Your task to perform on an android device: Search for Mexican restaurants on Maps Image 0: 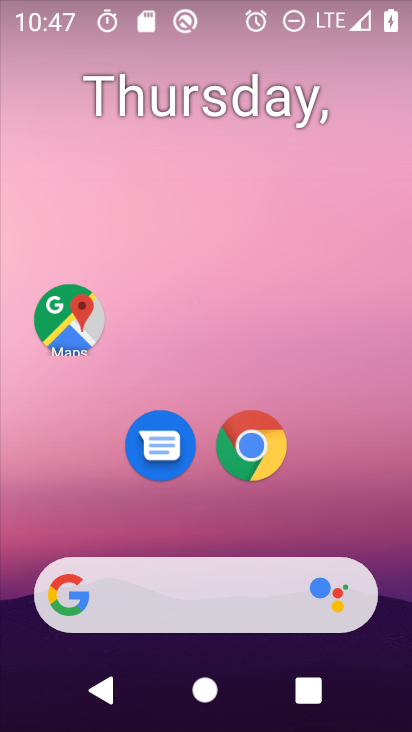
Step 0: drag from (261, 234) to (277, 166)
Your task to perform on an android device: Search for Mexican restaurants on Maps Image 1: 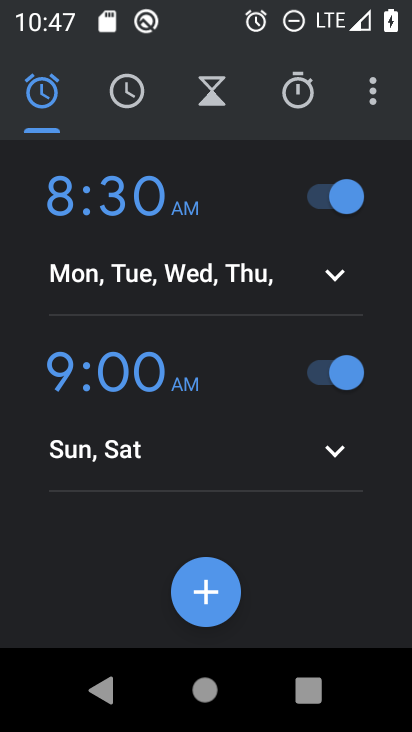
Step 1: press home button
Your task to perform on an android device: Search for Mexican restaurants on Maps Image 2: 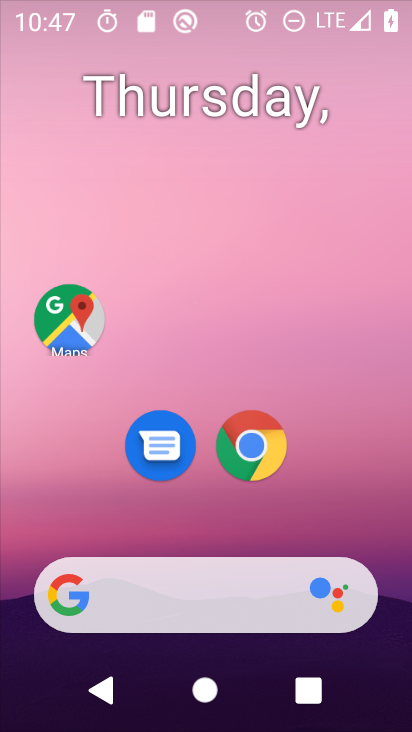
Step 2: drag from (207, 550) to (300, 75)
Your task to perform on an android device: Search for Mexican restaurants on Maps Image 3: 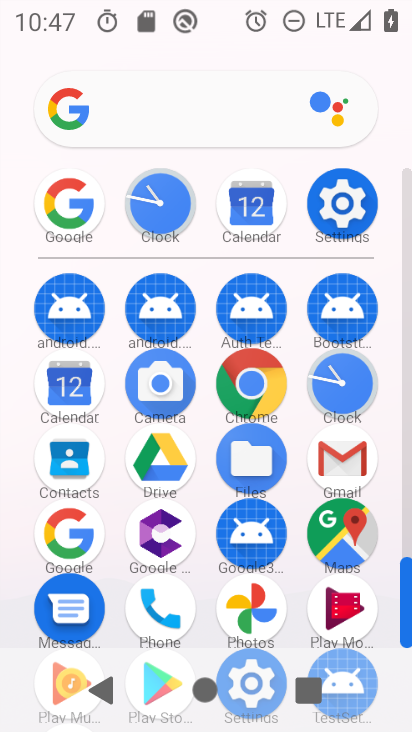
Step 3: click (329, 511)
Your task to perform on an android device: Search for Mexican restaurants on Maps Image 4: 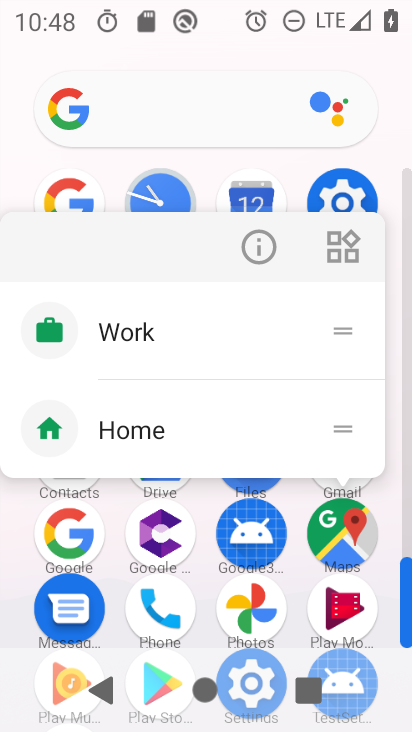
Step 4: click (271, 257)
Your task to perform on an android device: Search for Mexican restaurants on Maps Image 5: 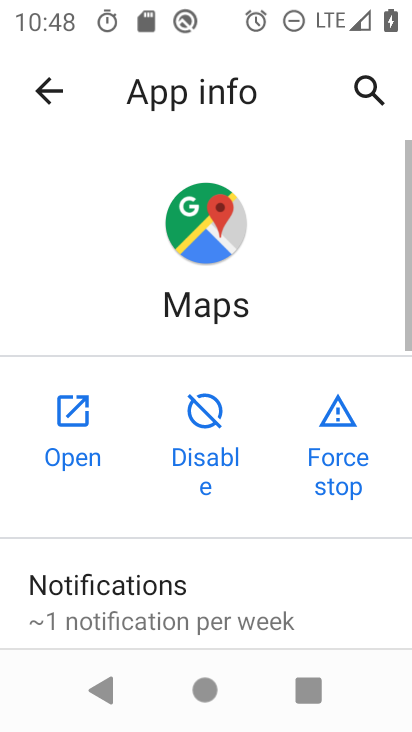
Step 5: click (87, 405)
Your task to perform on an android device: Search for Mexican restaurants on Maps Image 6: 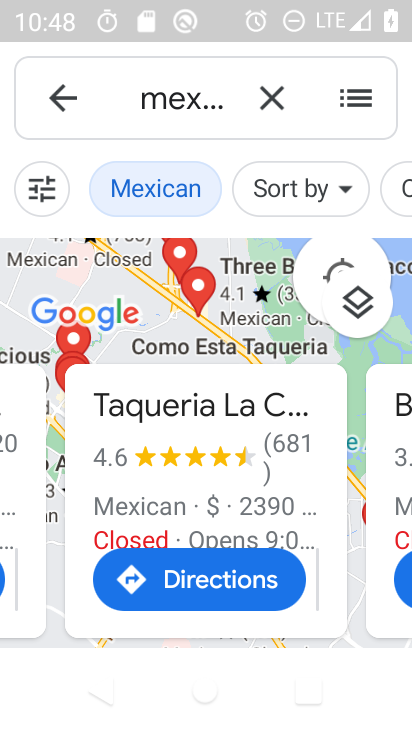
Step 6: click (158, 98)
Your task to perform on an android device: Search for Mexican restaurants on Maps Image 7: 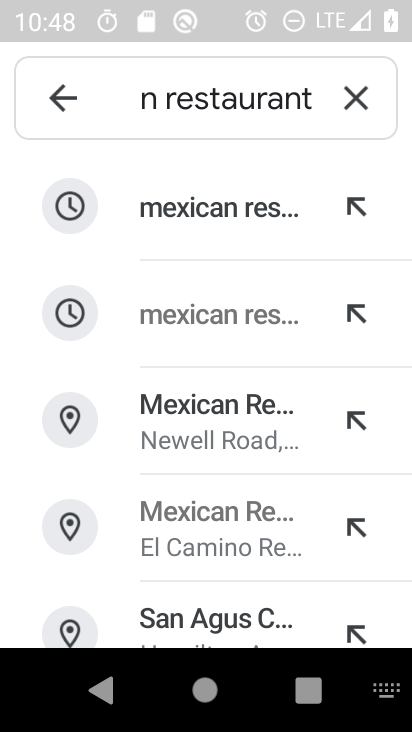
Step 7: click (210, 223)
Your task to perform on an android device: Search for Mexican restaurants on Maps Image 8: 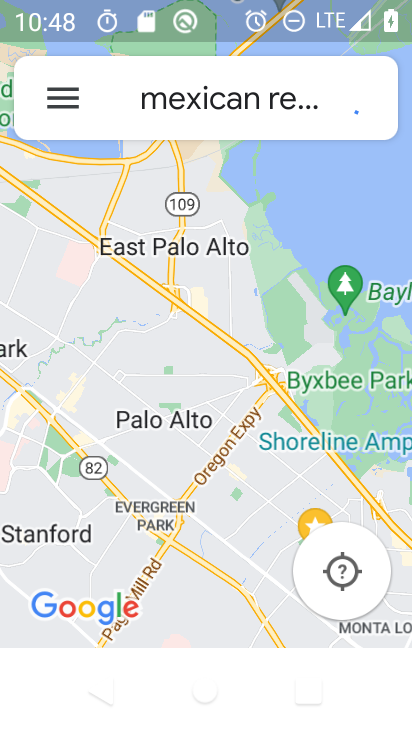
Step 8: task complete